Your task to perform on an android device: Add razer kraken to the cart on amazon Image 0: 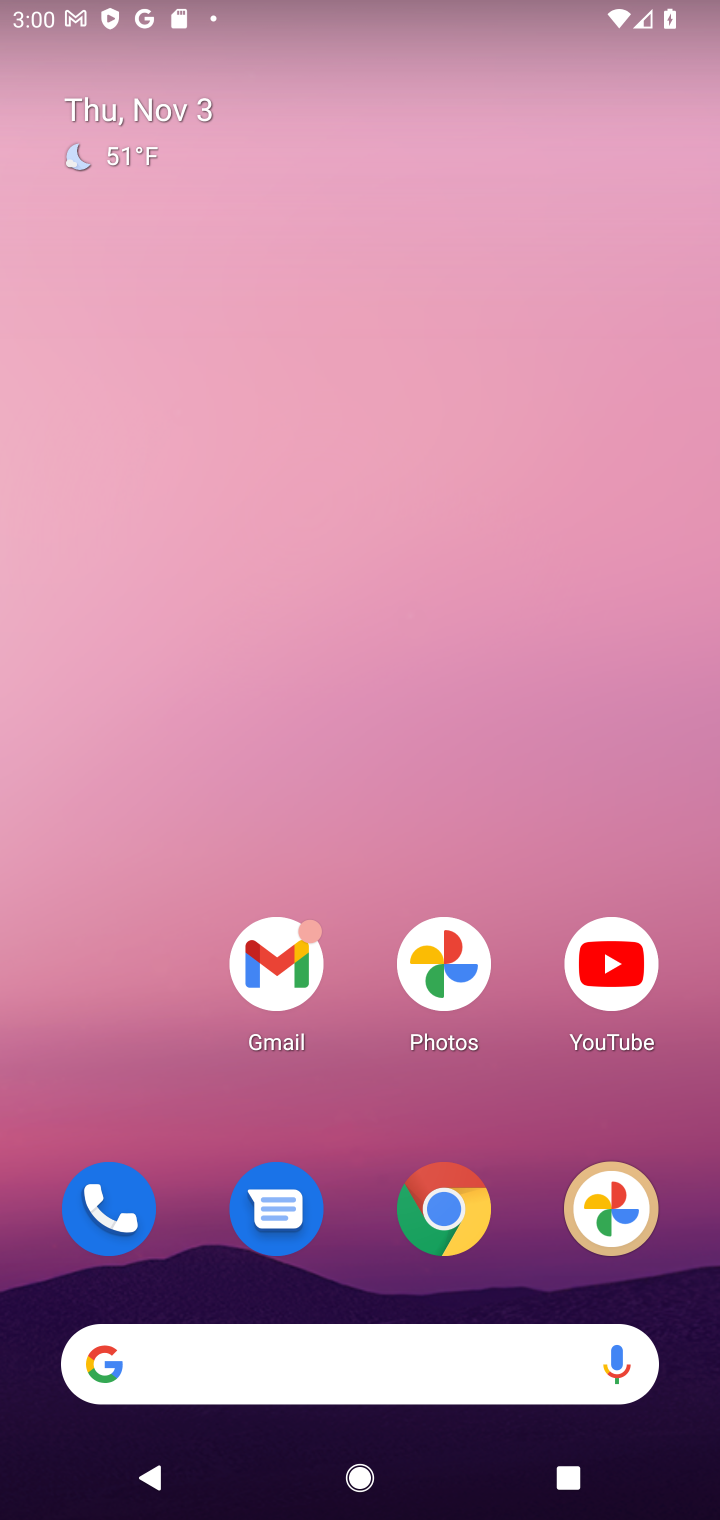
Step 0: click (435, 1226)
Your task to perform on an android device: Add razer kraken to the cart on amazon Image 1: 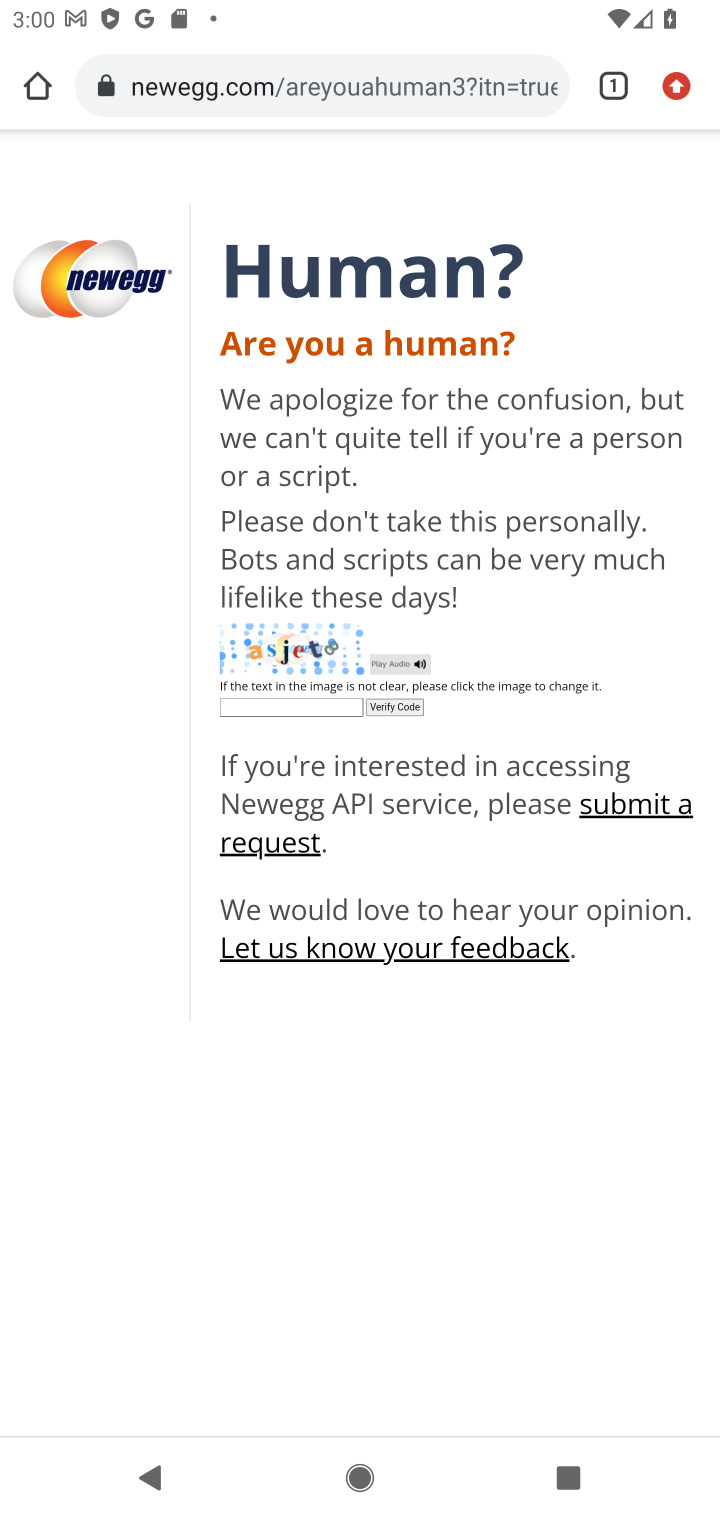
Step 1: click (341, 87)
Your task to perform on an android device: Add razer kraken to the cart on amazon Image 2: 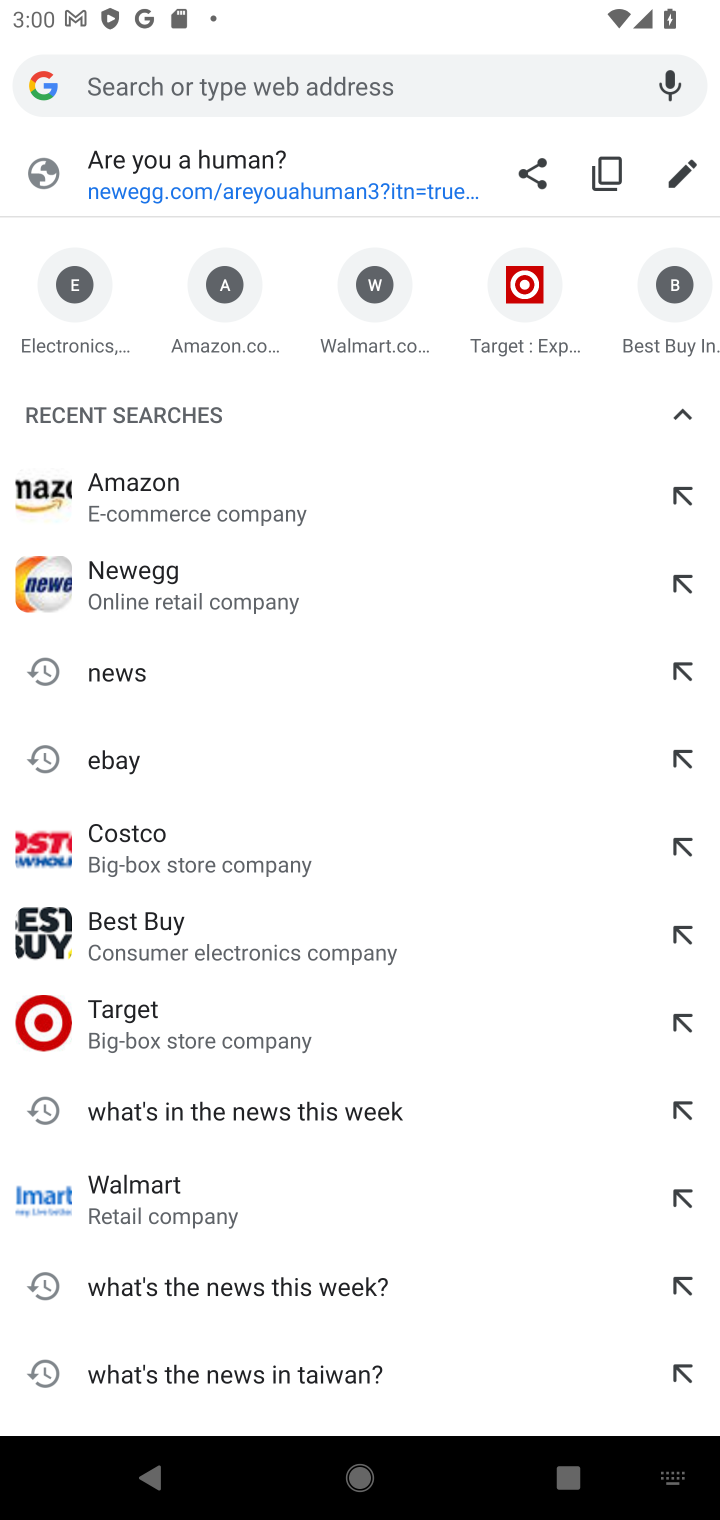
Step 2: type "amazon"
Your task to perform on an android device: Add razer kraken to the cart on amazon Image 3: 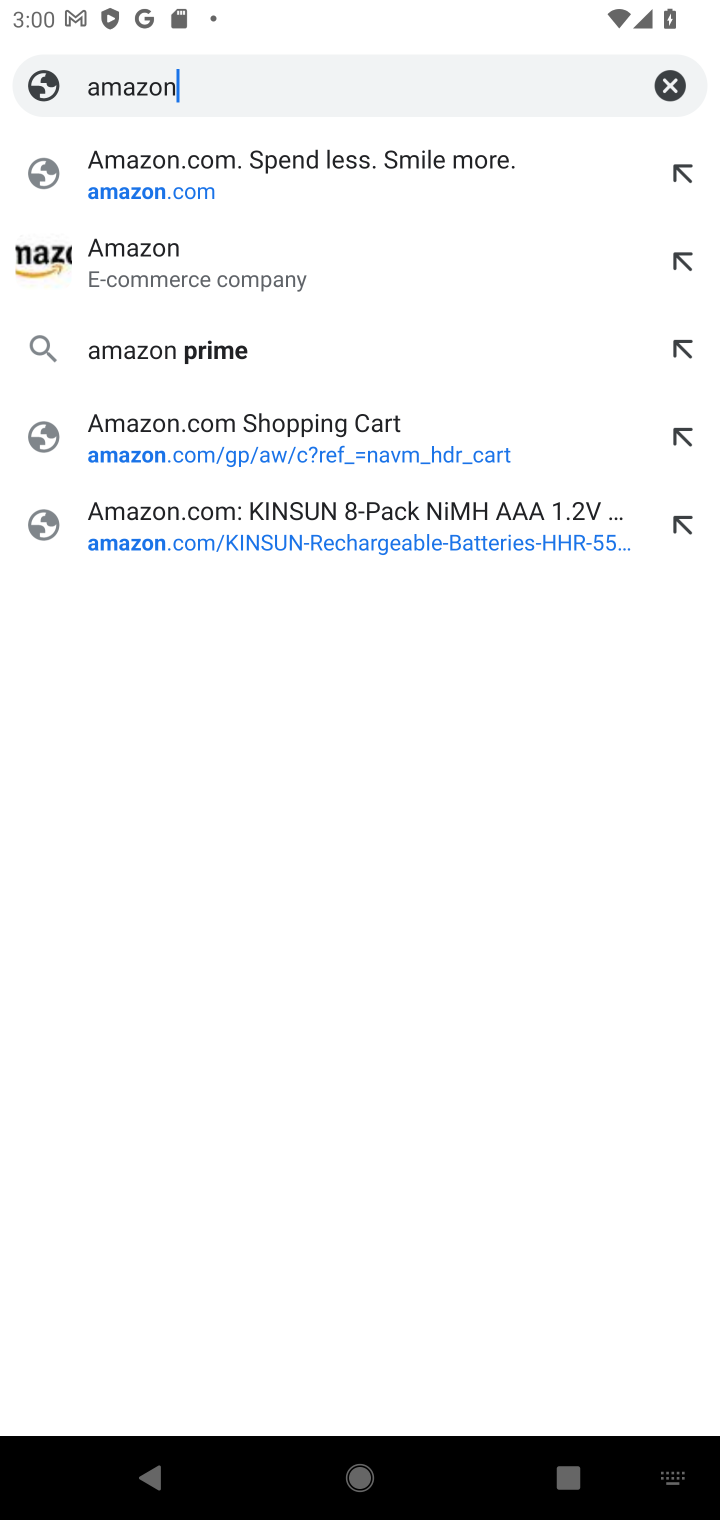
Step 3: click (500, 153)
Your task to perform on an android device: Add razer kraken to the cart on amazon Image 4: 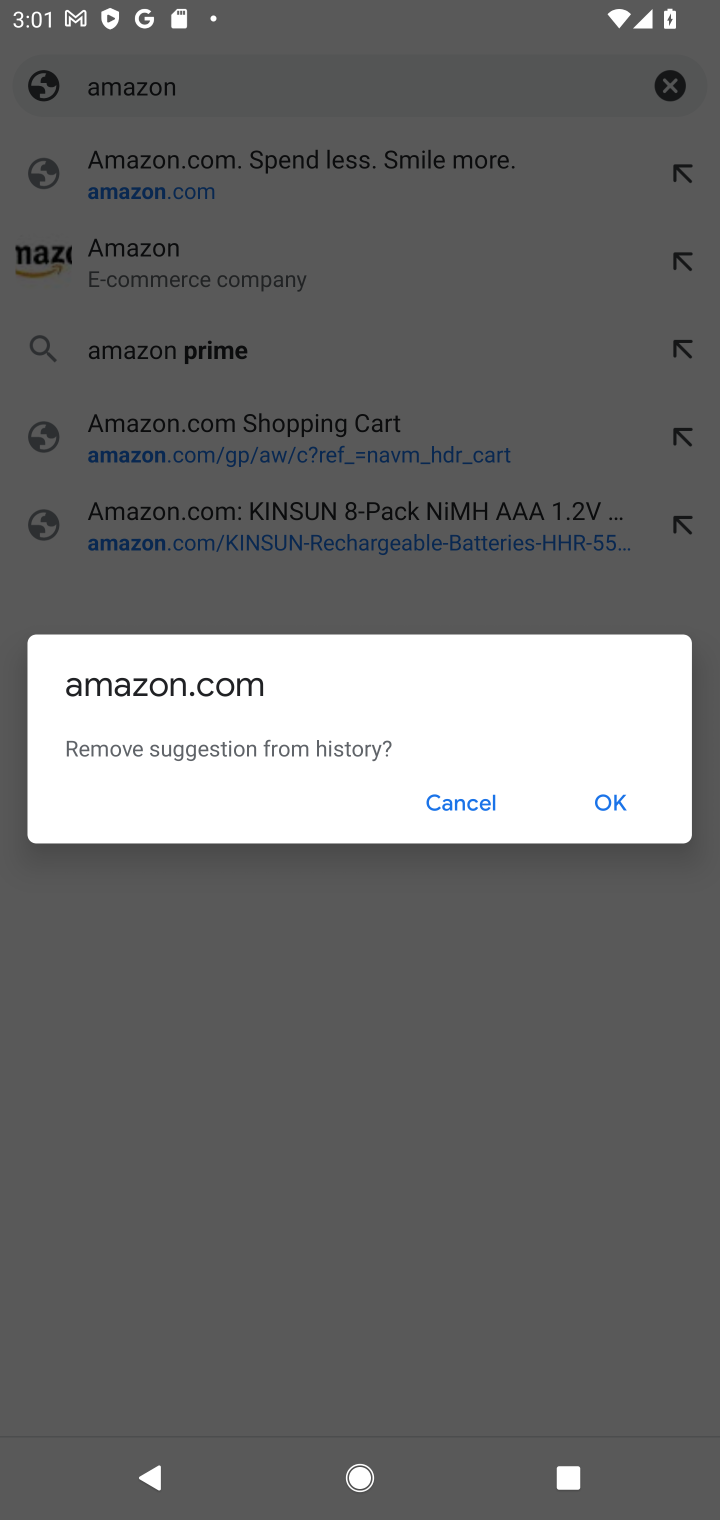
Step 4: click (436, 791)
Your task to perform on an android device: Add razer kraken to the cart on amazon Image 5: 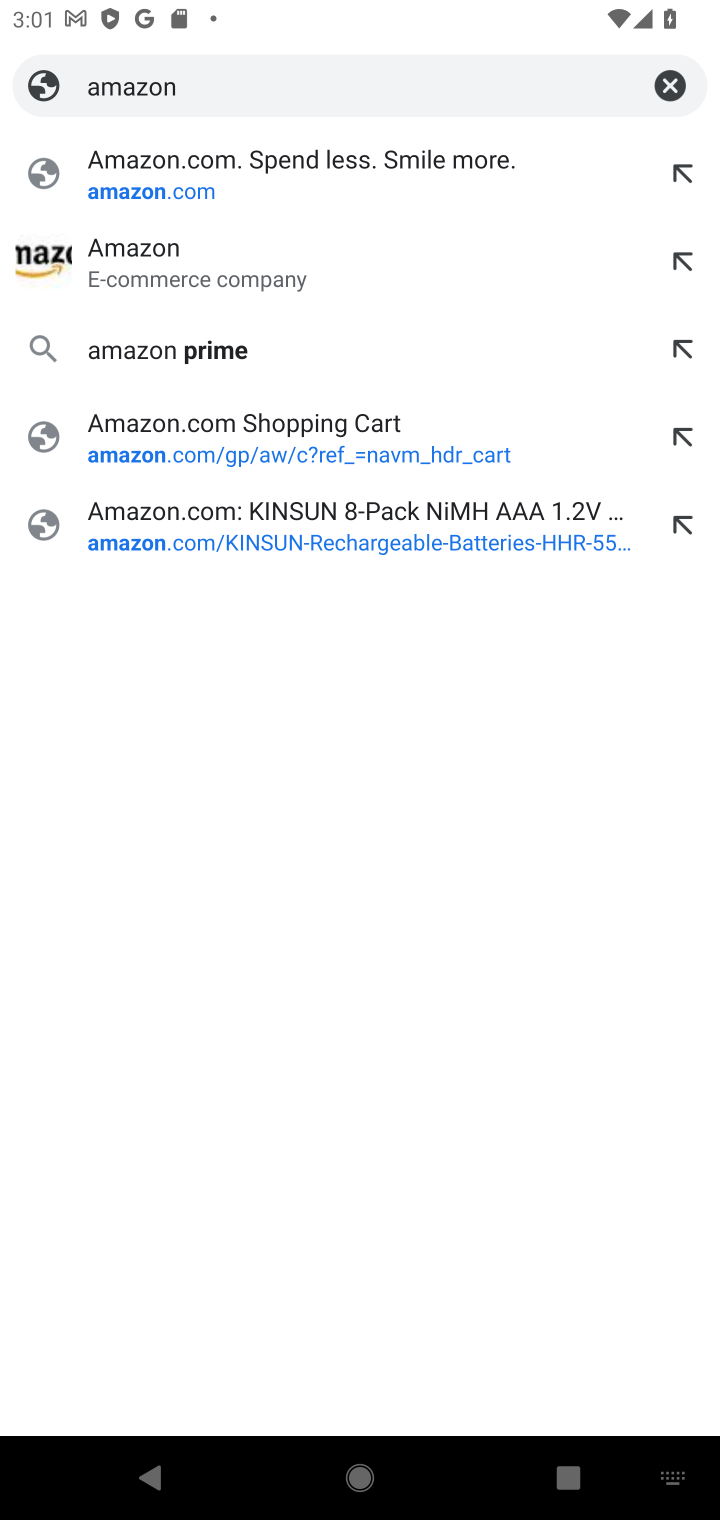
Step 5: click (281, 184)
Your task to perform on an android device: Add razer kraken to the cart on amazon Image 6: 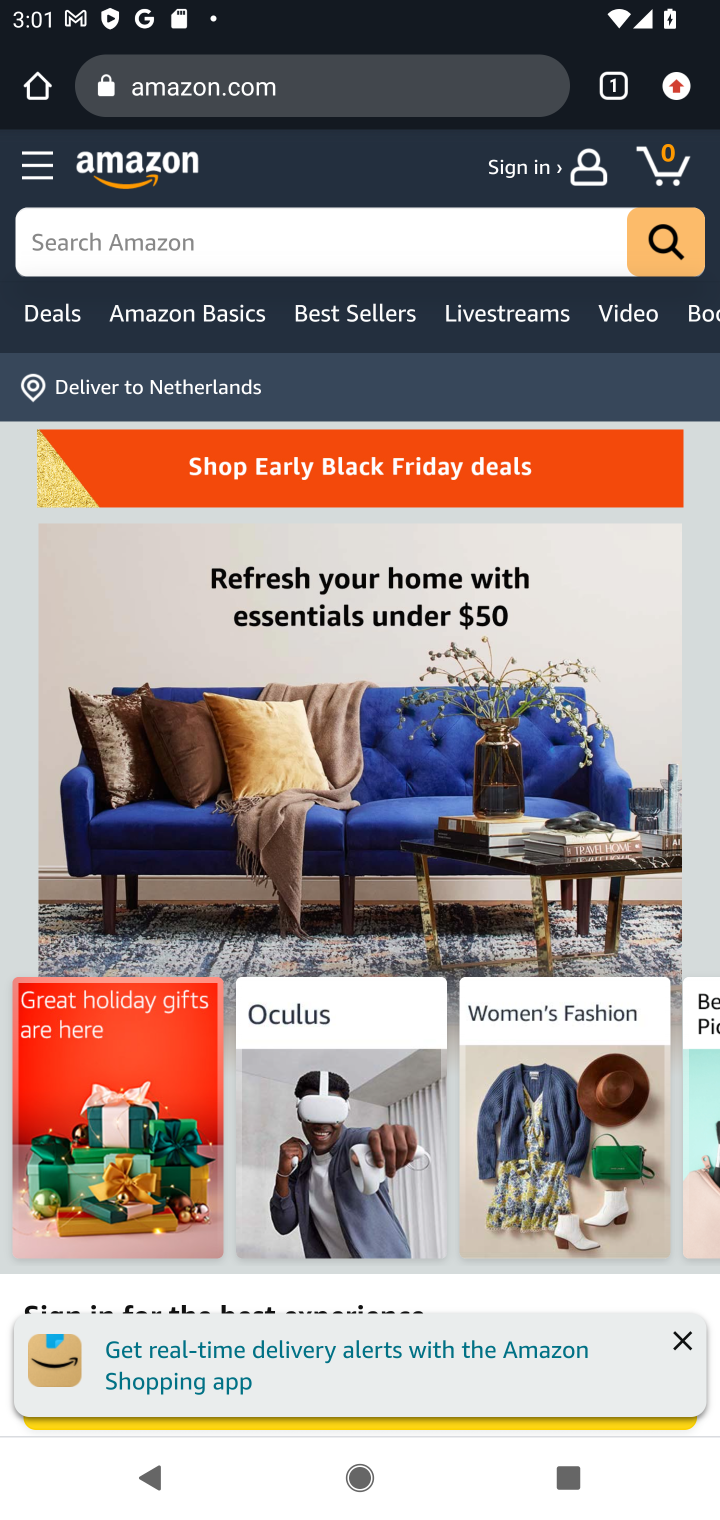
Step 6: click (341, 234)
Your task to perform on an android device: Add razer kraken to the cart on amazon Image 7: 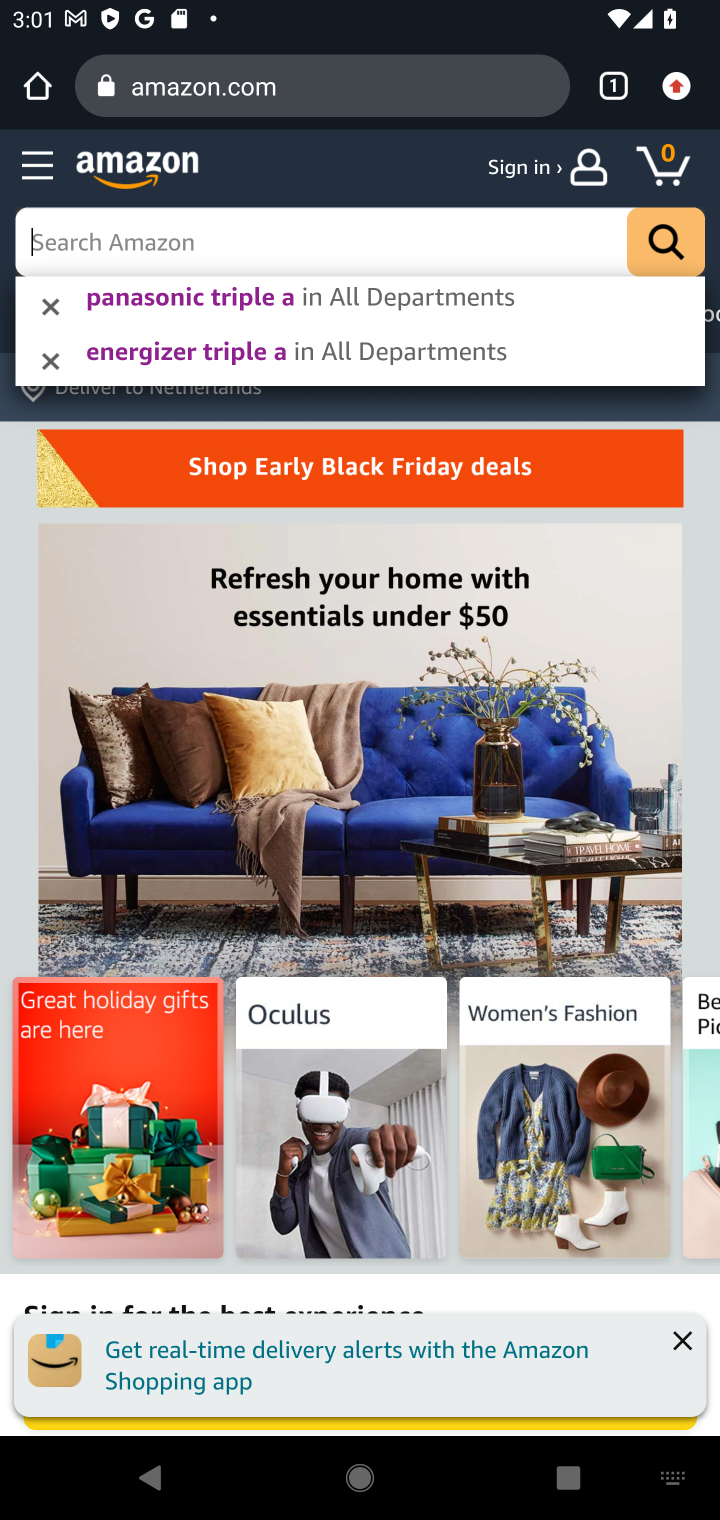
Step 7: type "razer kraken"
Your task to perform on an android device: Add razer kraken to the cart on amazon Image 8: 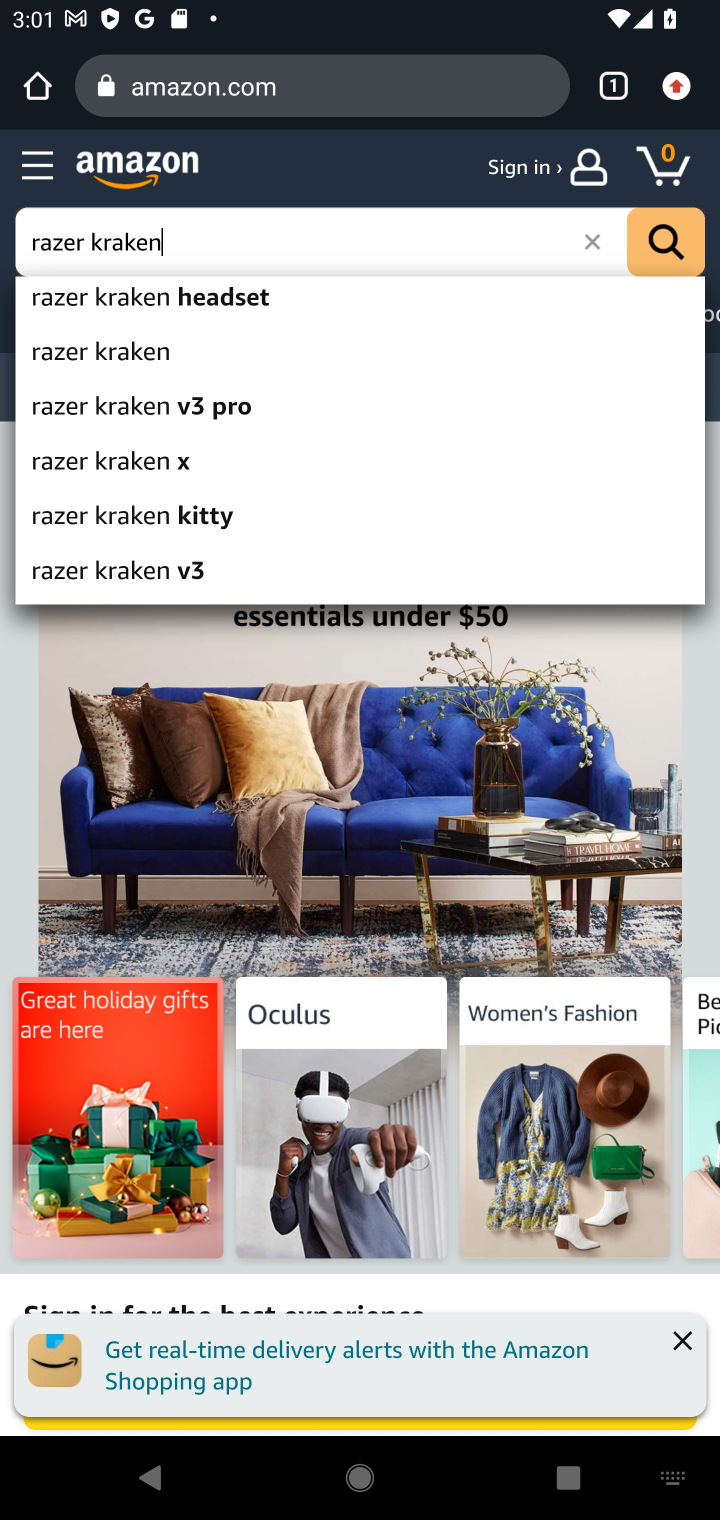
Step 8: press enter
Your task to perform on an android device: Add razer kraken to the cart on amazon Image 9: 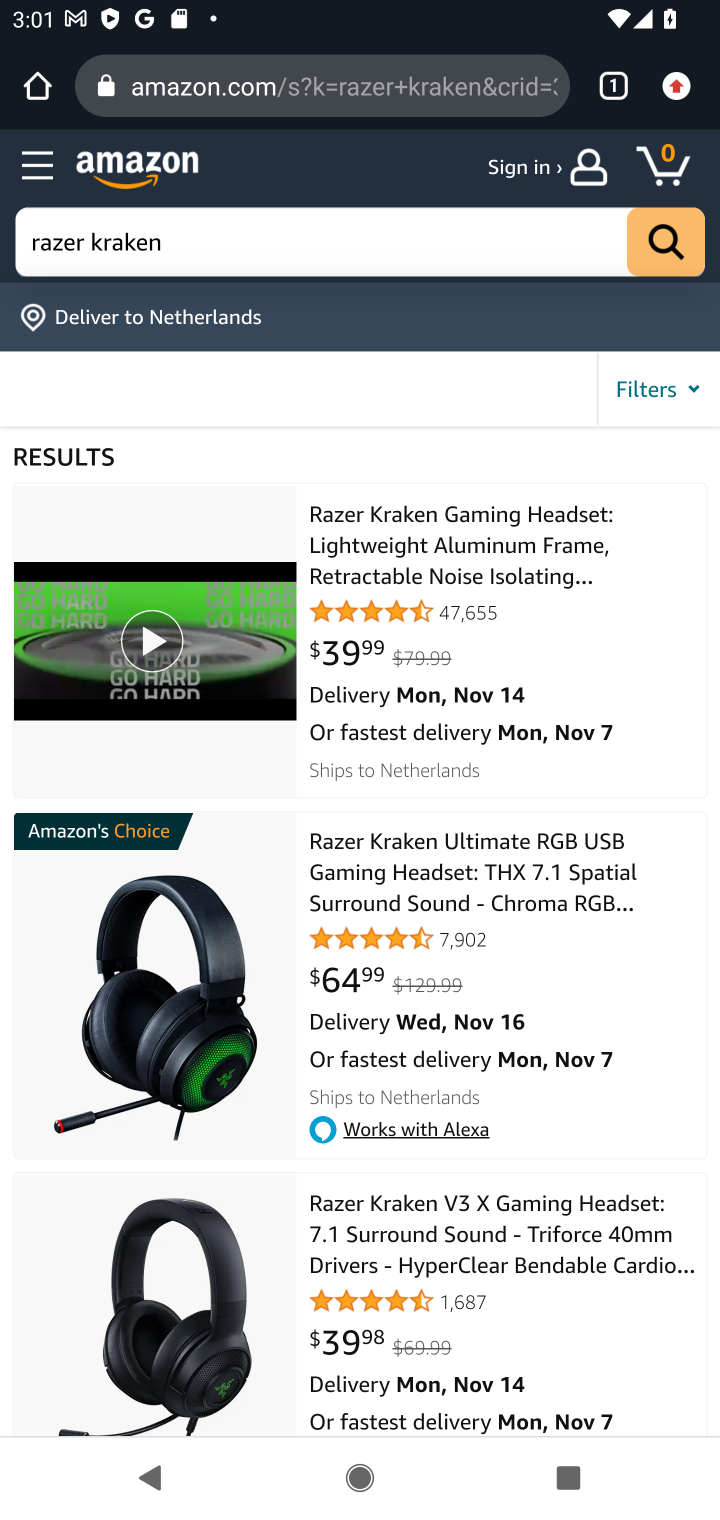
Step 9: click (432, 503)
Your task to perform on an android device: Add razer kraken to the cart on amazon Image 10: 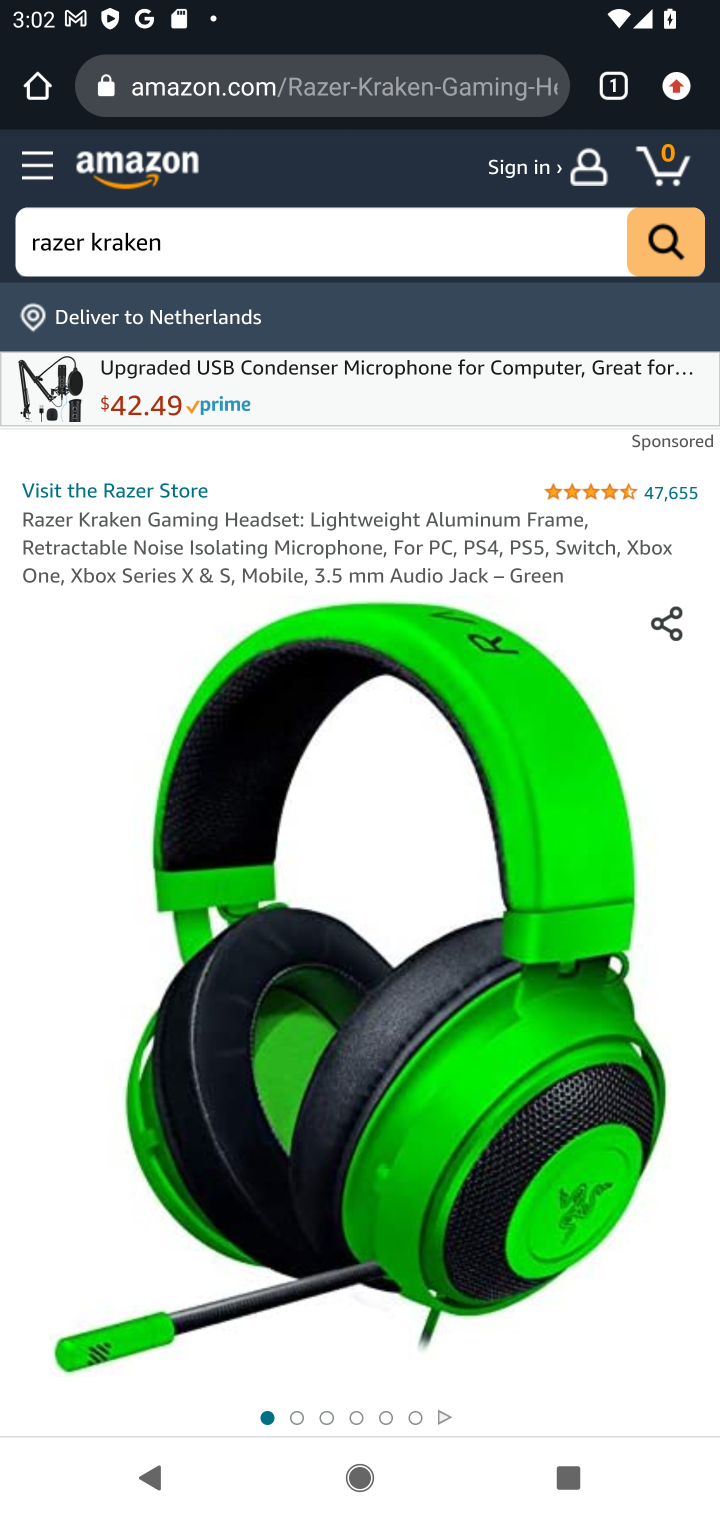
Step 10: drag from (584, 1208) to (495, 295)
Your task to perform on an android device: Add razer kraken to the cart on amazon Image 11: 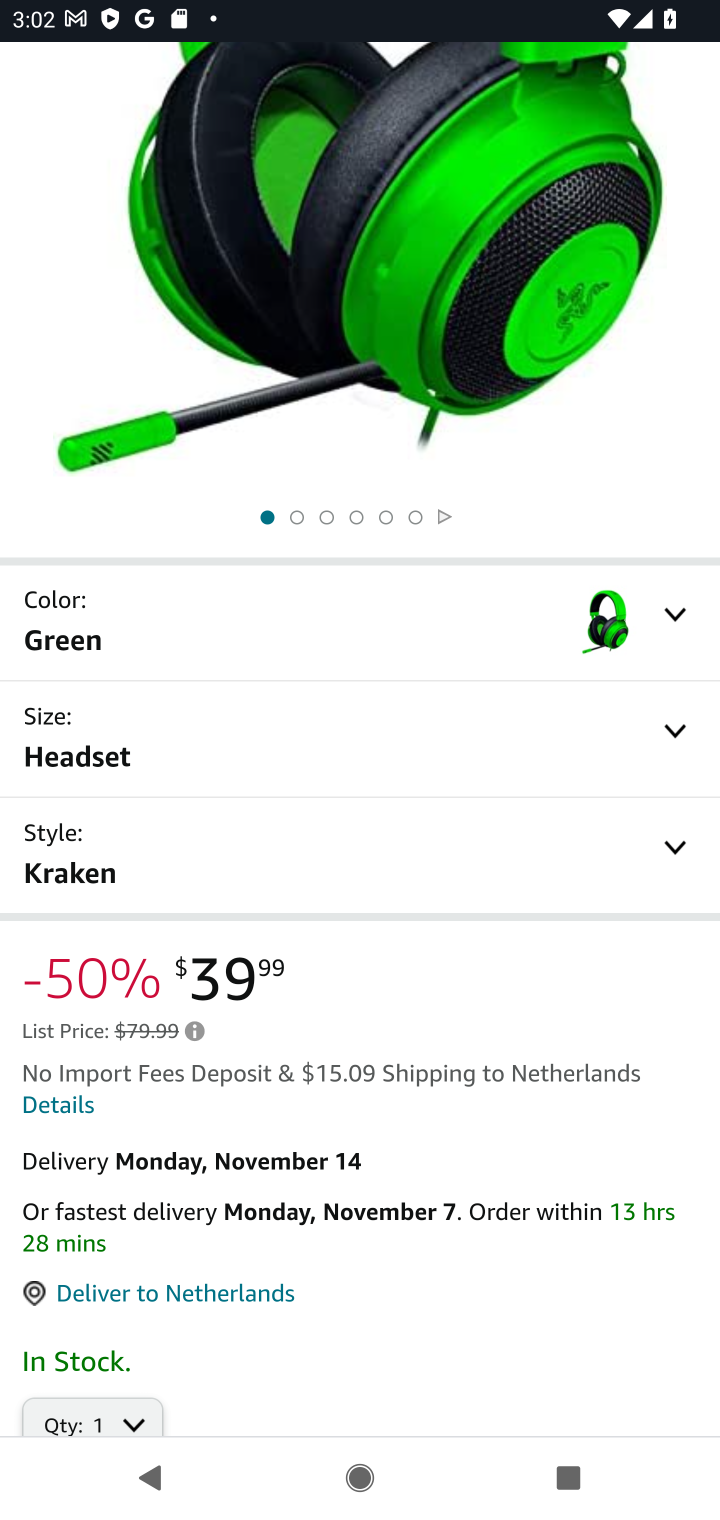
Step 11: drag from (491, 1241) to (421, 406)
Your task to perform on an android device: Add razer kraken to the cart on amazon Image 12: 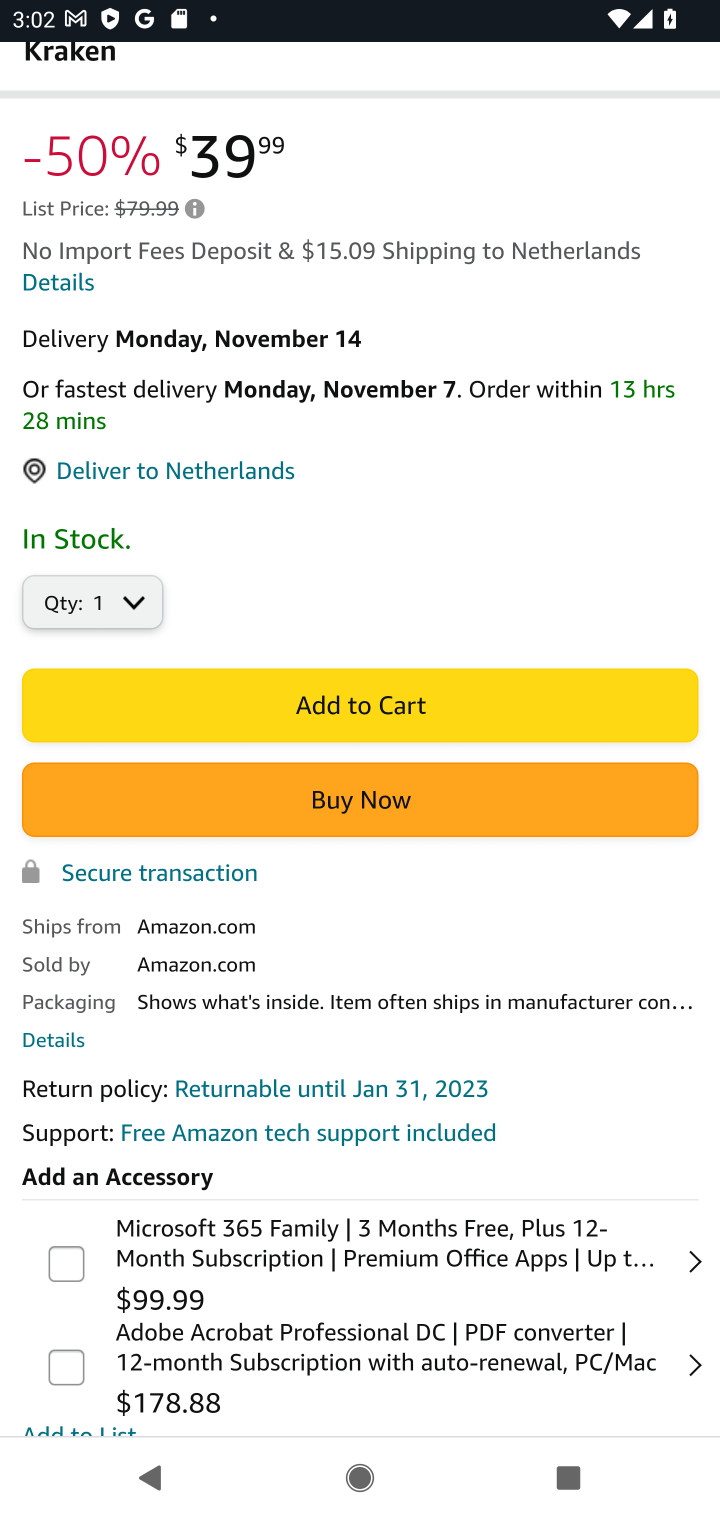
Step 12: click (472, 698)
Your task to perform on an android device: Add razer kraken to the cart on amazon Image 13: 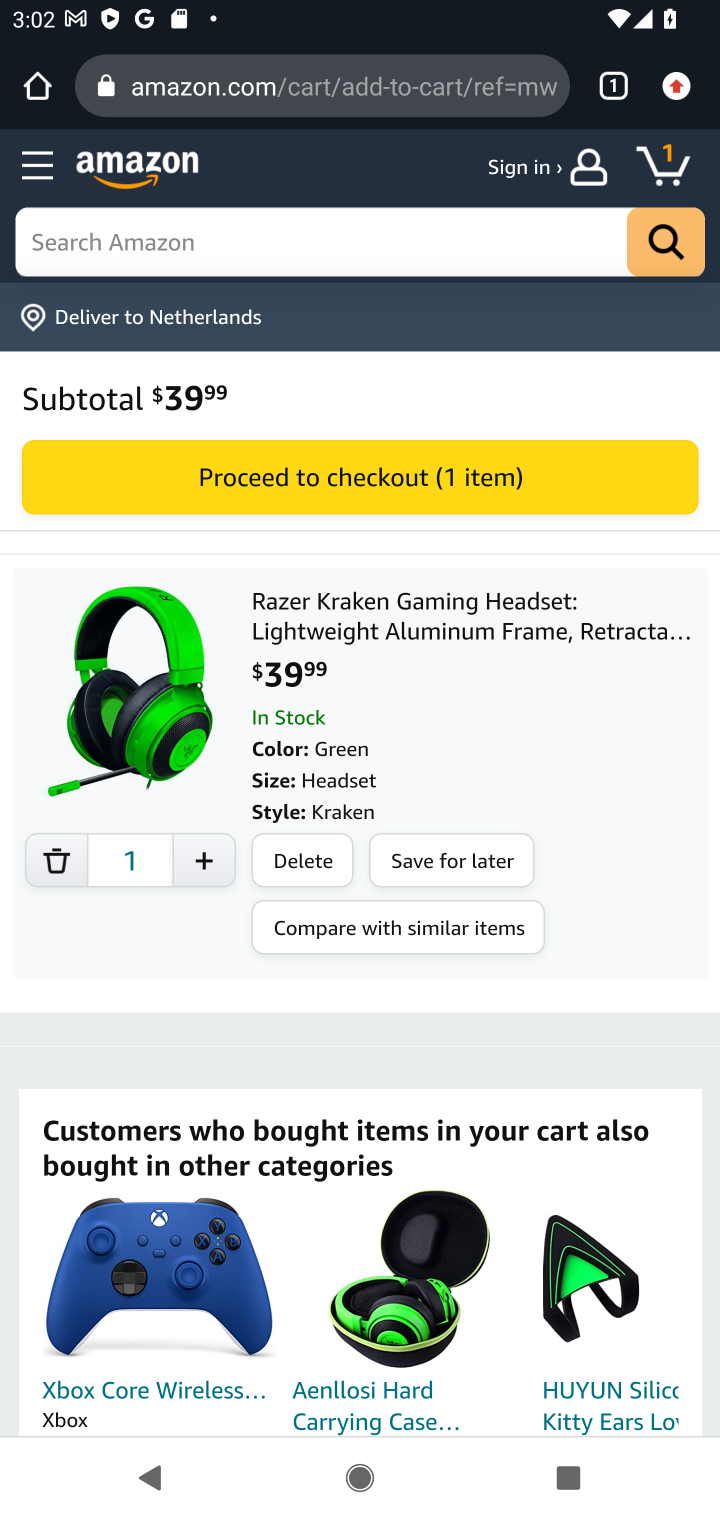
Step 13: task complete